Your task to perform on an android device: turn off wifi Image 0: 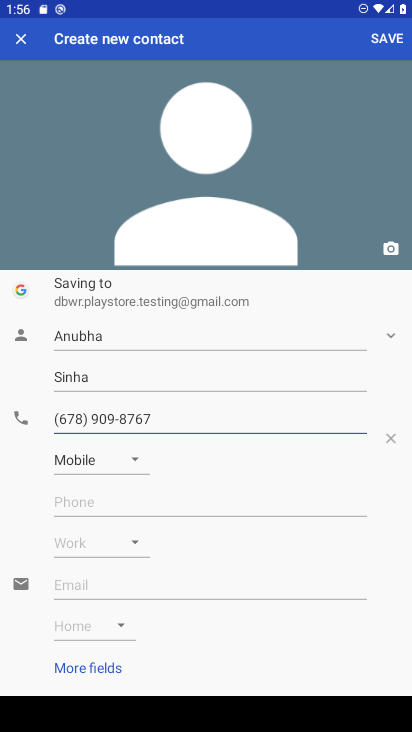
Step 0: press home button
Your task to perform on an android device: turn off wifi Image 1: 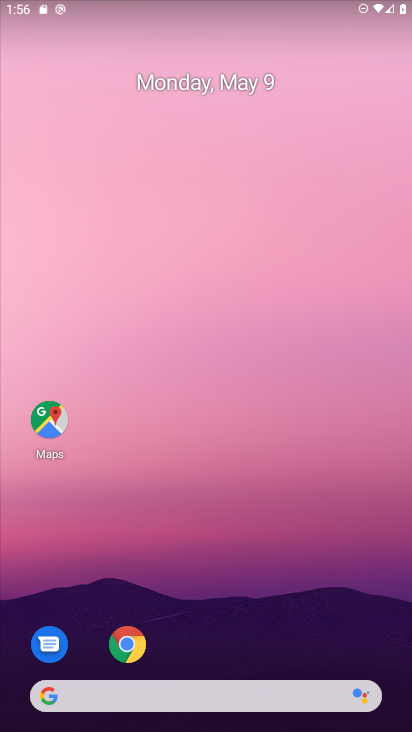
Step 1: drag from (244, 134) to (249, 30)
Your task to perform on an android device: turn off wifi Image 2: 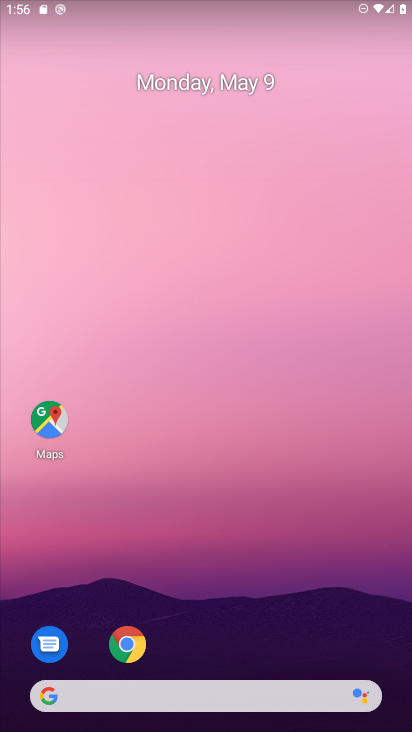
Step 2: drag from (281, 216) to (282, 127)
Your task to perform on an android device: turn off wifi Image 3: 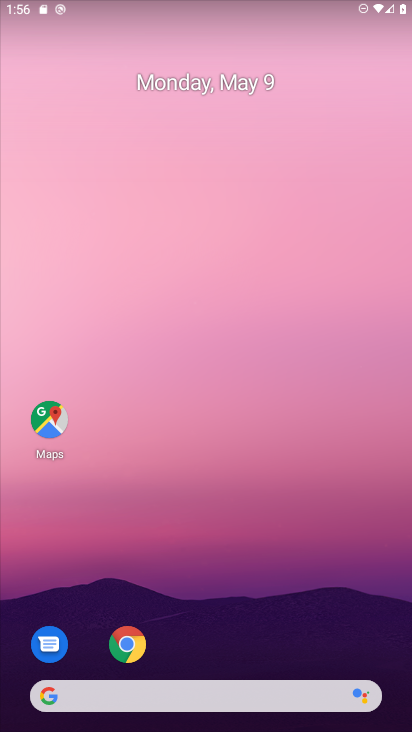
Step 3: drag from (235, 453) to (267, 85)
Your task to perform on an android device: turn off wifi Image 4: 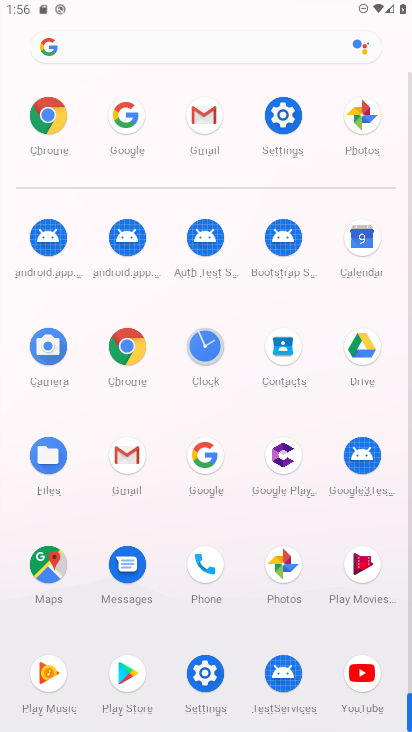
Step 4: click (277, 151)
Your task to perform on an android device: turn off wifi Image 5: 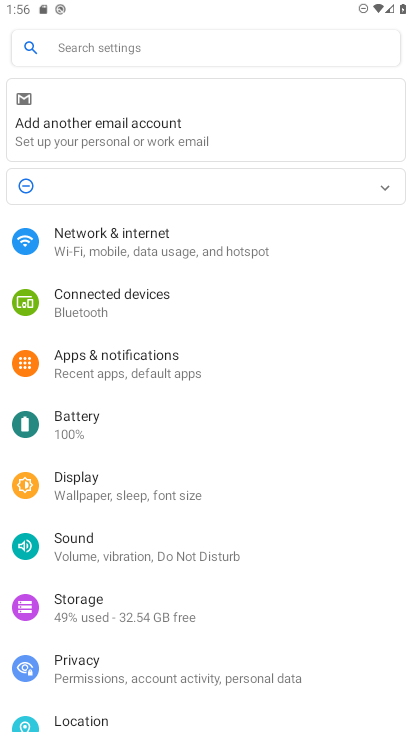
Step 5: click (148, 251)
Your task to perform on an android device: turn off wifi Image 6: 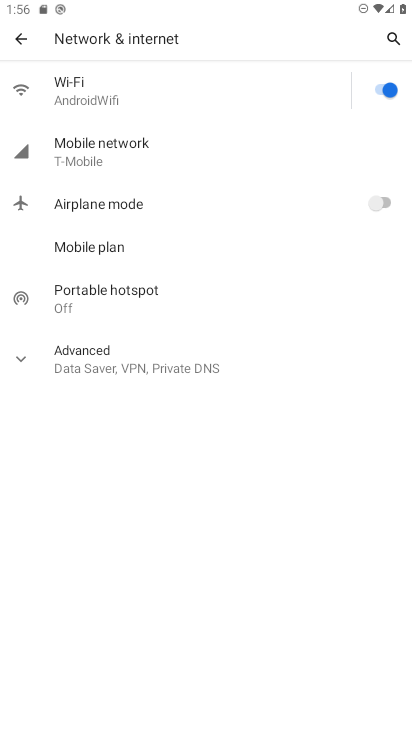
Step 6: click (380, 86)
Your task to perform on an android device: turn off wifi Image 7: 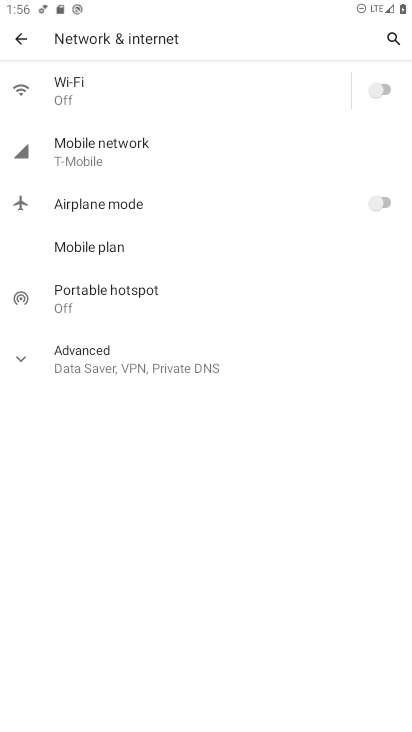
Step 7: task complete